Your task to perform on an android device: change the clock display to analog Image 0: 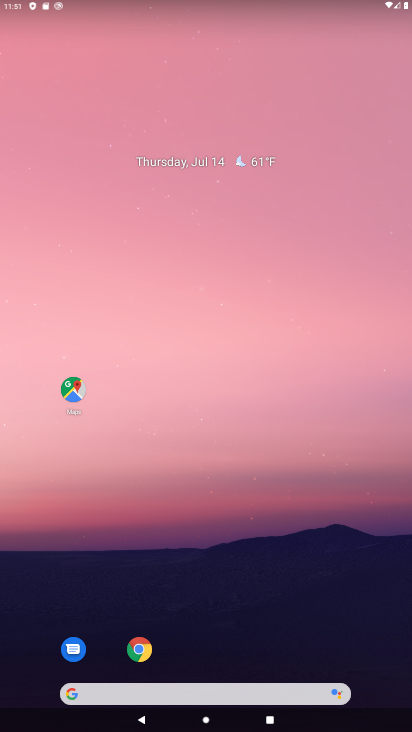
Step 0: drag from (251, 671) to (186, 24)
Your task to perform on an android device: change the clock display to analog Image 1: 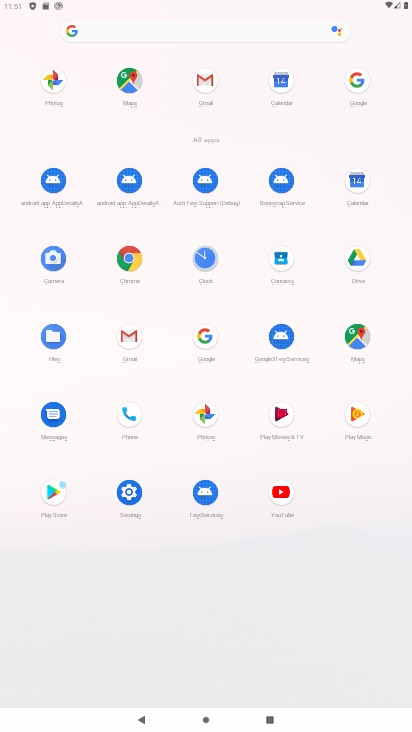
Step 1: click (203, 267)
Your task to perform on an android device: change the clock display to analog Image 2: 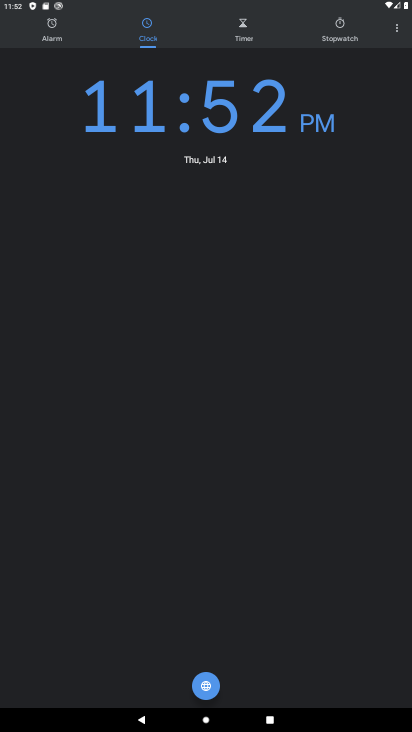
Step 2: click (401, 39)
Your task to perform on an android device: change the clock display to analog Image 3: 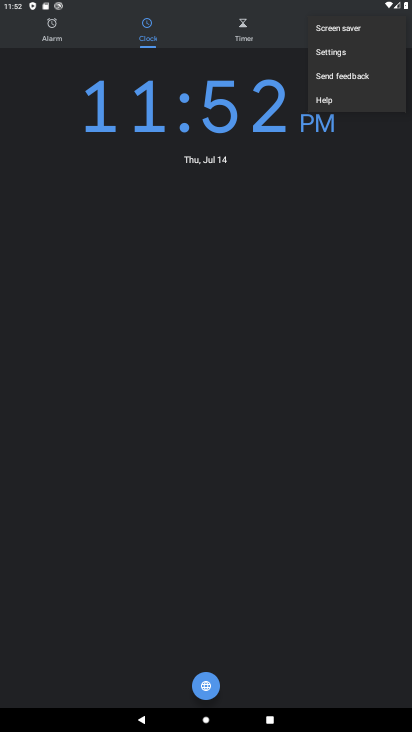
Step 3: click (331, 60)
Your task to perform on an android device: change the clock display to analog Image 4: 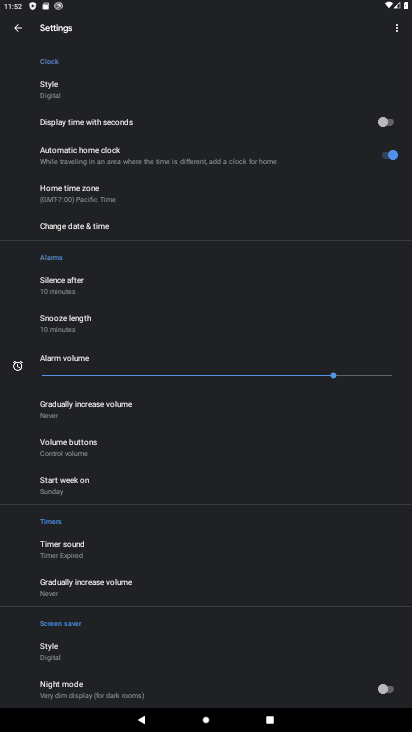
Step 4: click (54, 92)
Your task to perform on an android device: change the clock display to analog Image 5: 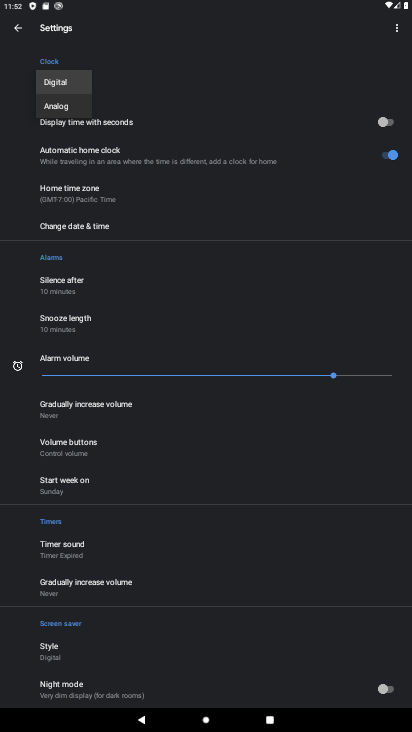
Step 5: click (62, 108)
Your task to perform on an android device: change the clock display to analog Image 6: 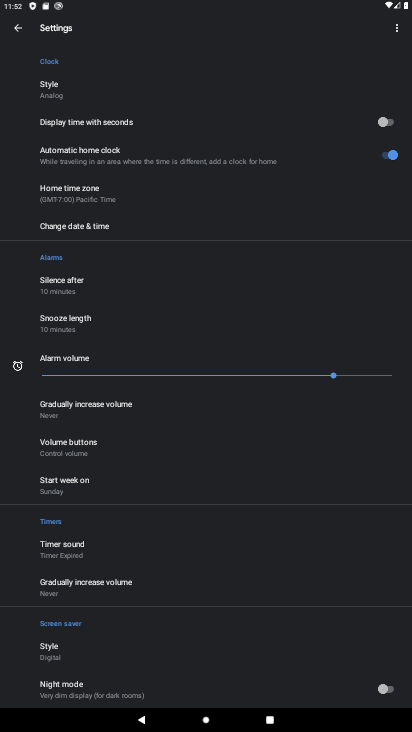
Step 6: task complete